Your task to perform on an android device: Open Chrome and go to settings Image 0: 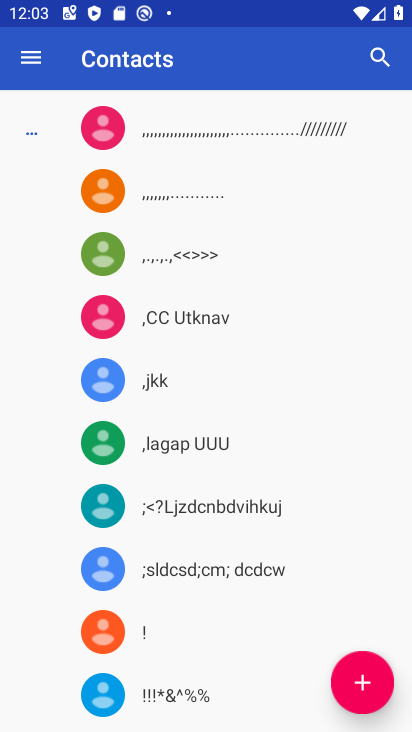
Step 0: press home button
Your task to perform on an android device: Open Chrome and go to settings Image 1: 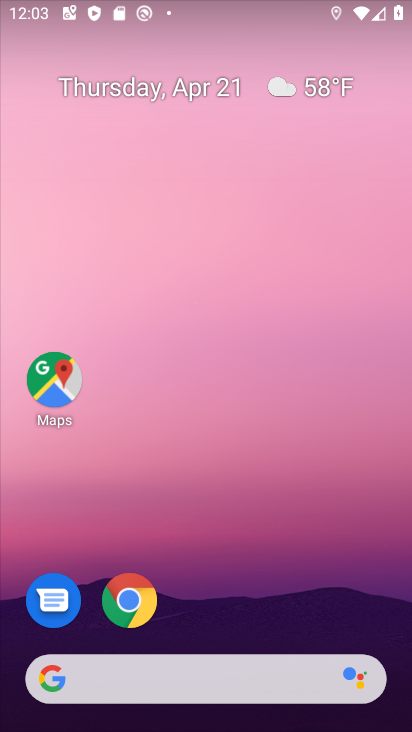
Step 1: click (136, 604)
Your task to perform on an android device: Open Chrome and go to settings Image 2: 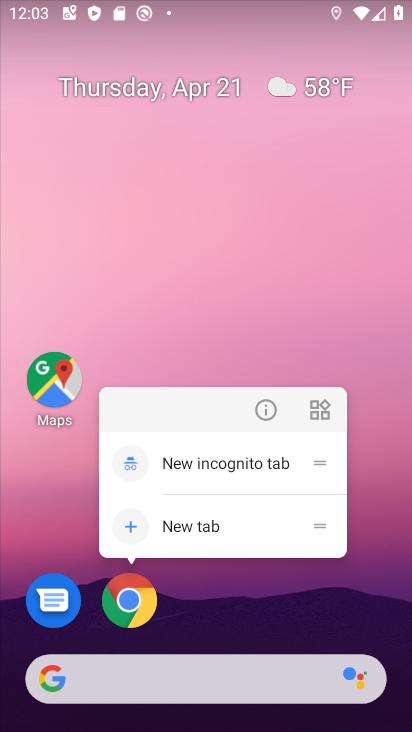
Step 2: click (137, 602)
Your task to perform on an android device: Open Chrome and go to settings Image 3: 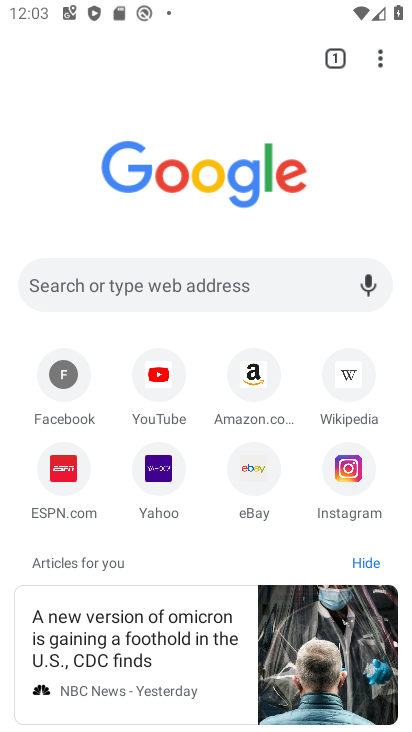
Step 3: click (371, 57)
Your task to perform on an android device: Open Chrome and go to settings Image 4: 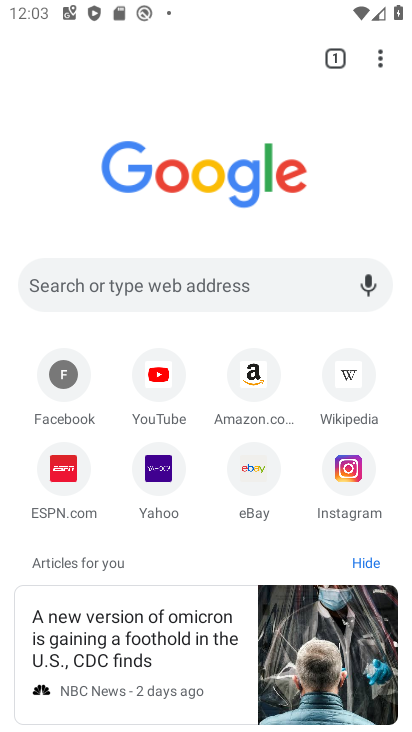
Step 4: task complete